Your task to perform on an android device: Do I have any events tomorrow? Image 0: 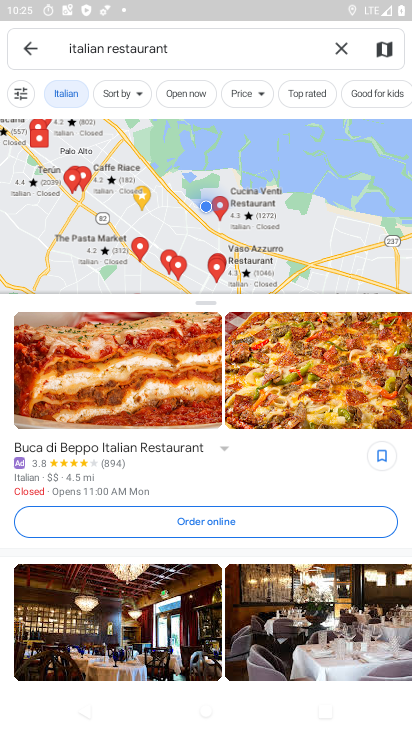
Step 0: press home button
Your task to perform on an android device: Do I have any events tomorrow? Image 1: 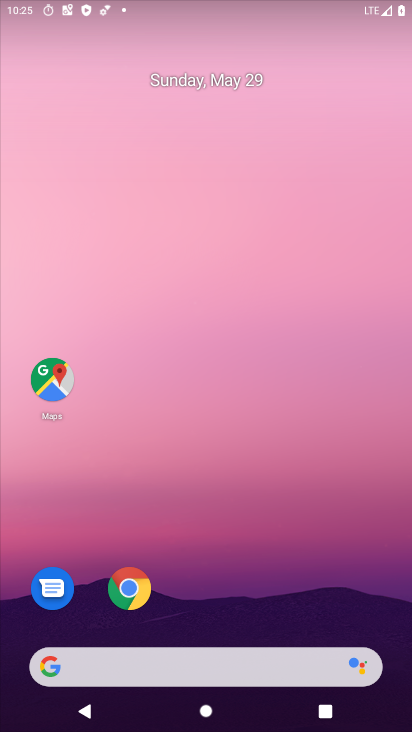
Step 1: drag from (238, 451) to (243, 201)
Your task to perform on an android device: Do I have any events tomorrow? Image 2: 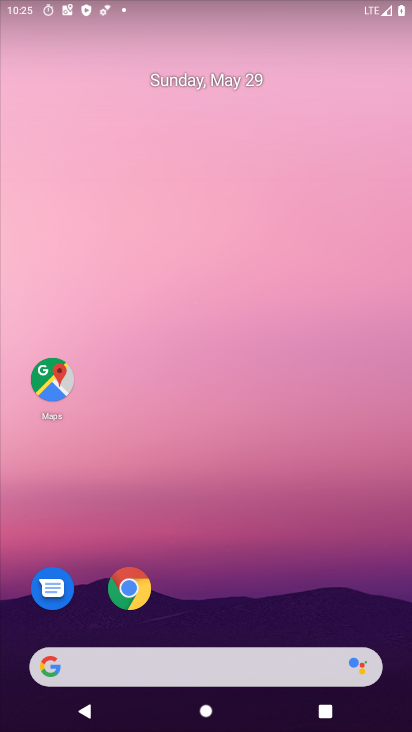
Step 2: drag from (215, 520) to (254, 3)
Your task to perform on an android device: Do I have any events tomorrow? Image 3: 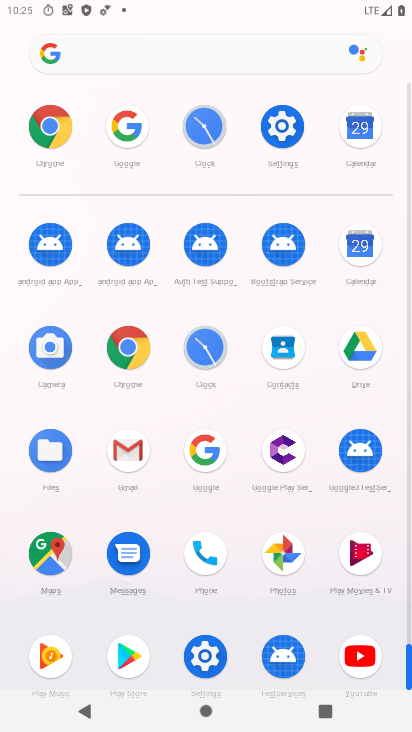
Step 3: click (345, 250)
Your task to perform on an android device: Do I have any events tomorrow? Image 4: 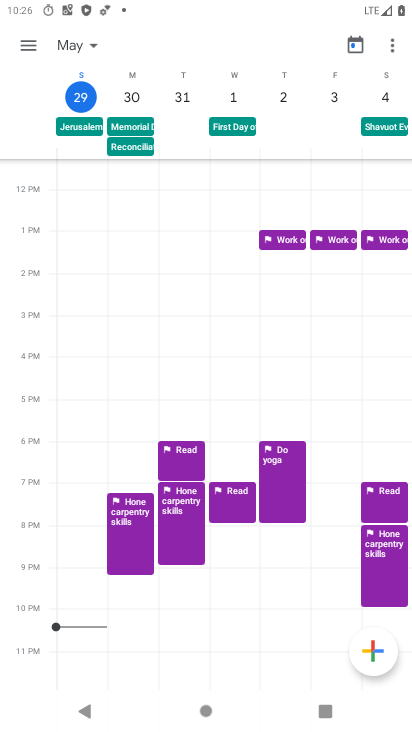
Step 4: click (121, 100)
Your task to perform on an android device: Do I have any events tomorrow? Image 5: 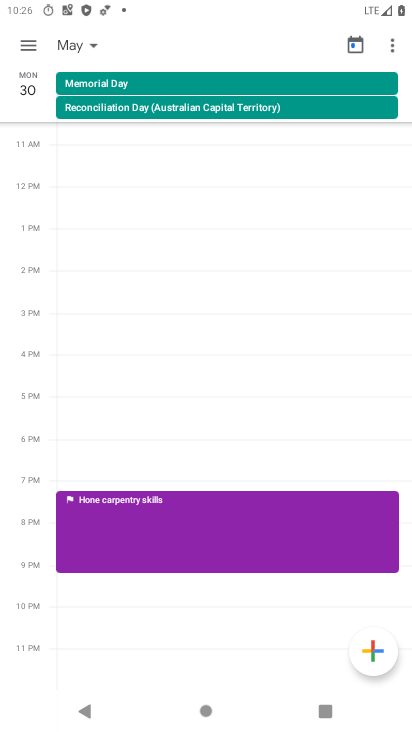
Step 5: task complete